Your task to perform on an android device: turn on javascript in the chrome app Image 0: 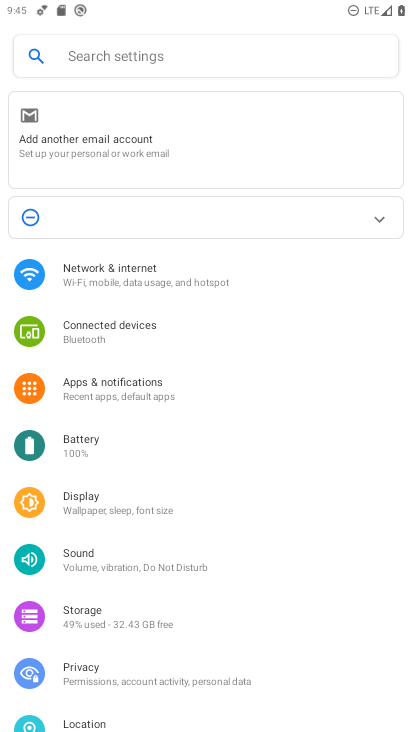
Step 0: press home button
Your task to perform on an android device: turn on javascript in the chrome app Image 1: 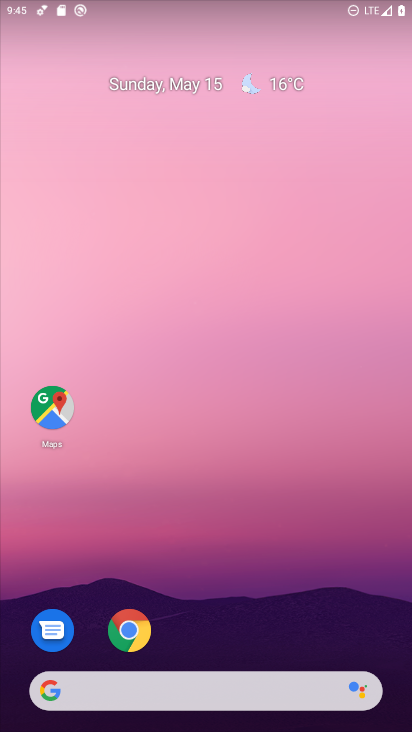
Step 1: click (125, 631)
Your task to perform on an android device: turn on javascript in the chrome app Image 2: 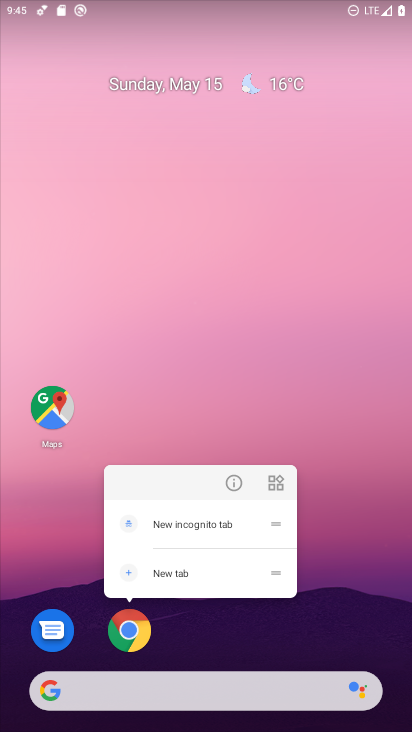
Step 2: click (273, 336)
Your task to perform on an android device: turn on javascript in the chrome app Image 3: 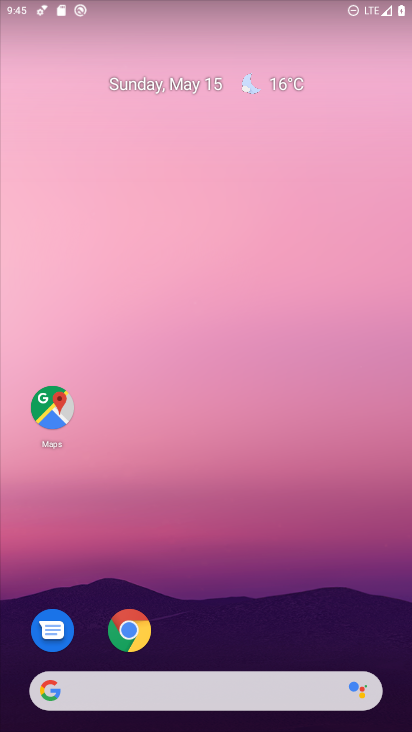
Step 3: drag from (207, 650) to (195, 216)
Your task to perform on an android device: turn on javascript in the chrome app Image 4: 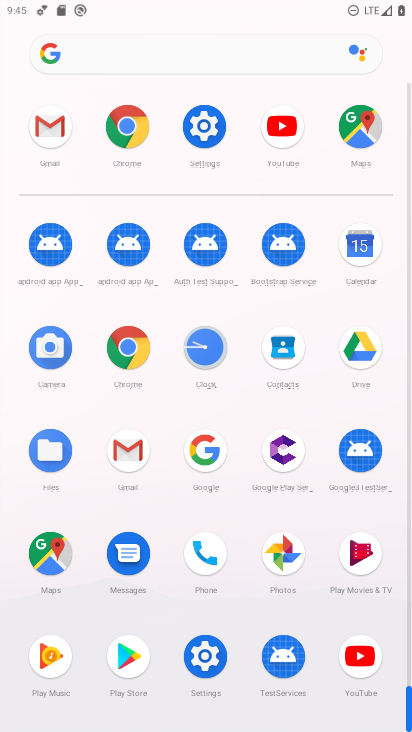
Step 4: click (121, 348)
Your task to perform on an android device: turn on javascript in the chrome app Image 5: 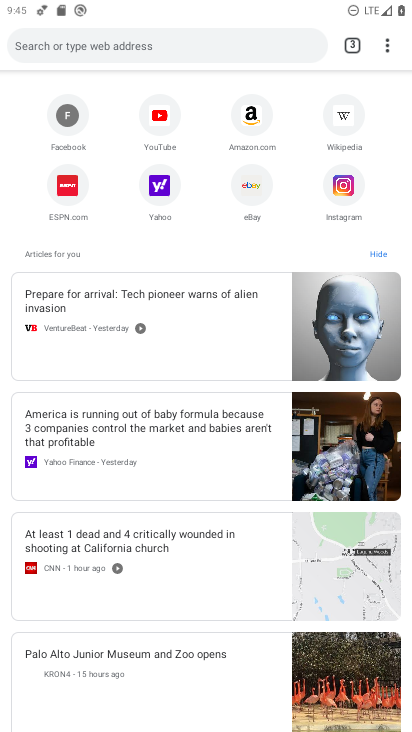
Step 5: click (392, 45)
Your task to perform on an android device: turn on javascript in the chrome app Image 6: 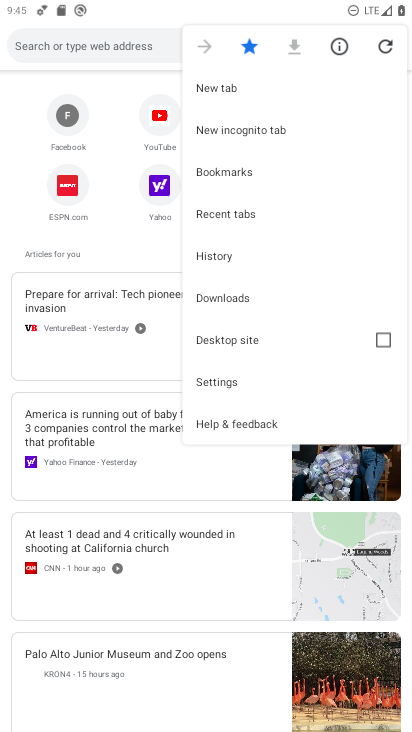
Step 6: click (229, 377)
Your task to perform on an android device: turn on javascript in the chrome app Image 7: 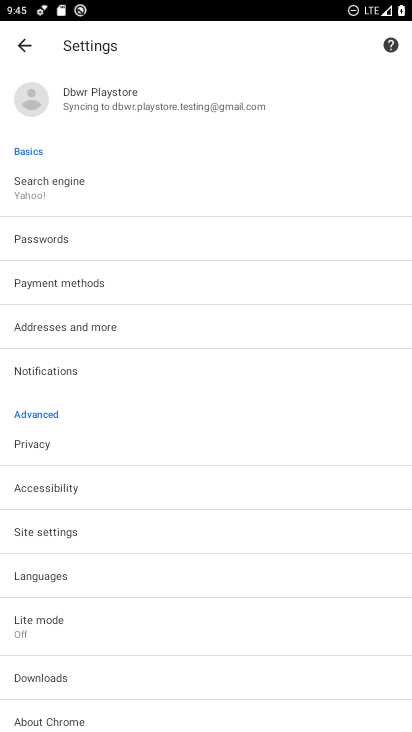
Step 7: click (76, 545)
Your task to perform on an android device: turn on javascript in the chrome app Image 8: 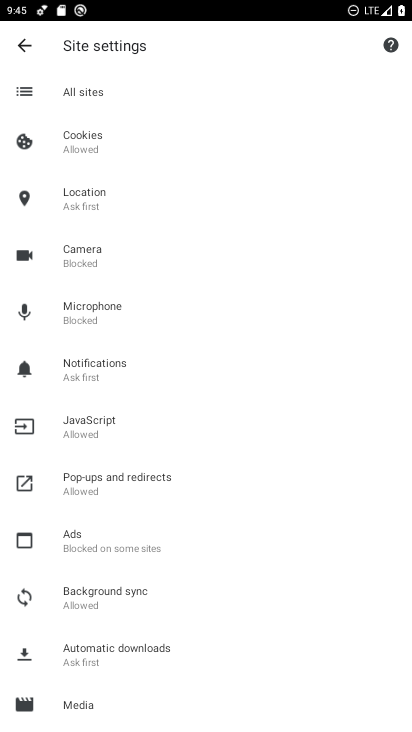
Step 8: click (115, 406)
Your task to perform on an android device: turn on javascript in the chrome app Image 9: 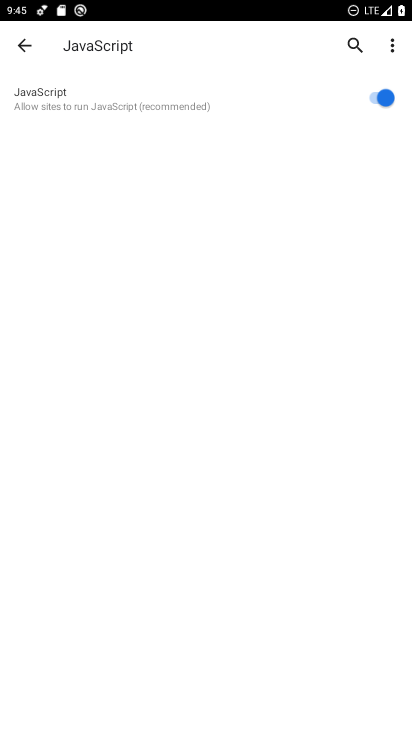
Step 9: task complete